Your task to perform on an android device: show emergency info Image 0: 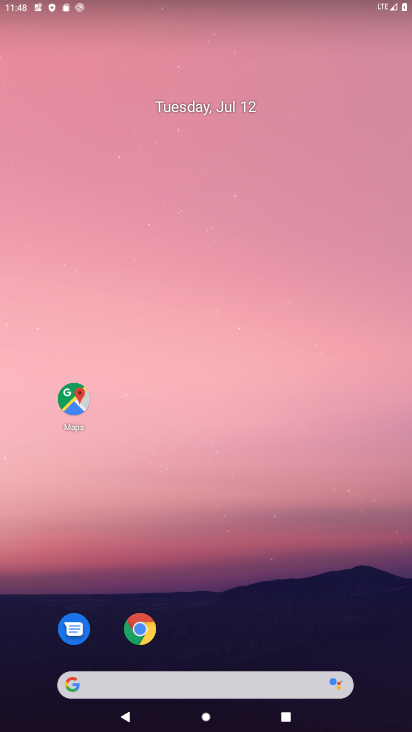
Step 0: press home button
Your task to perform on an android device: show emergency info Image 1: 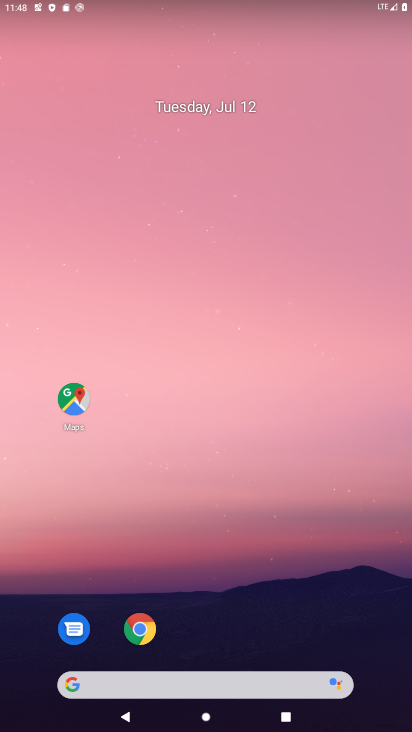
Step 1: drag from (221, 644) to (221, 6)
Your task to perform on an android device: show emergency info Image 2: 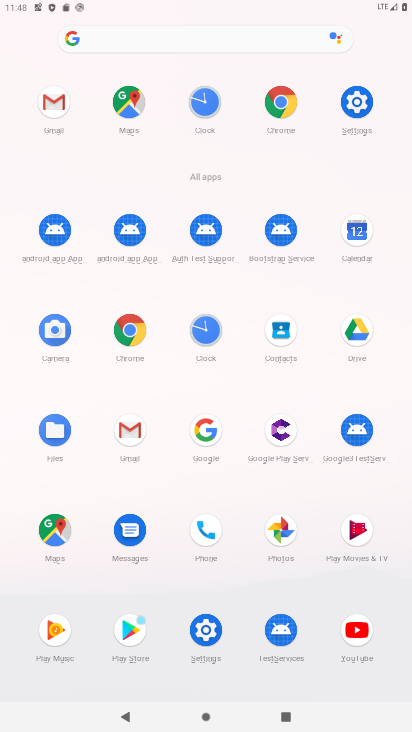
Step 2: click (355, 99)
Your task to perform on an android device: show emergency info Image 3: 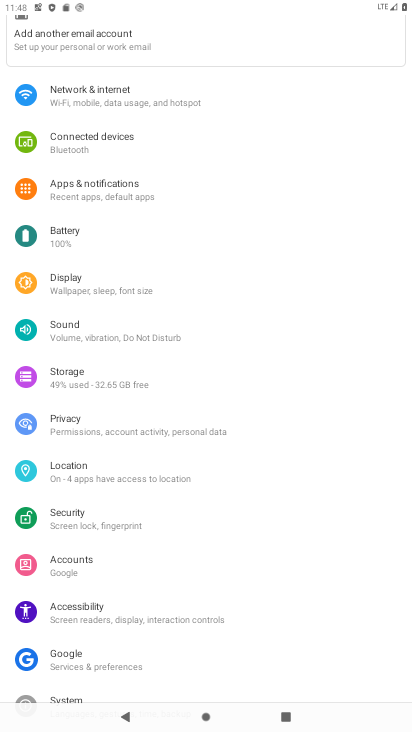
Step 3: drag from (132, 643) to (157, 74)
Your task to perform on an android device: show emergency info Image 4: 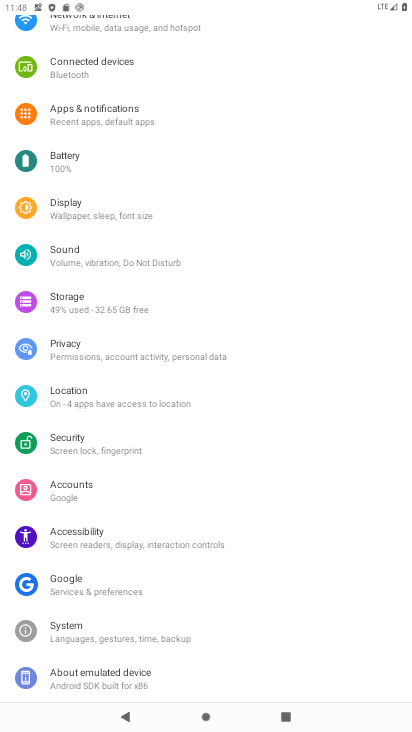
Step 4: click (157, 676)
Your task to perform on an android device: show emergency info Image 5: 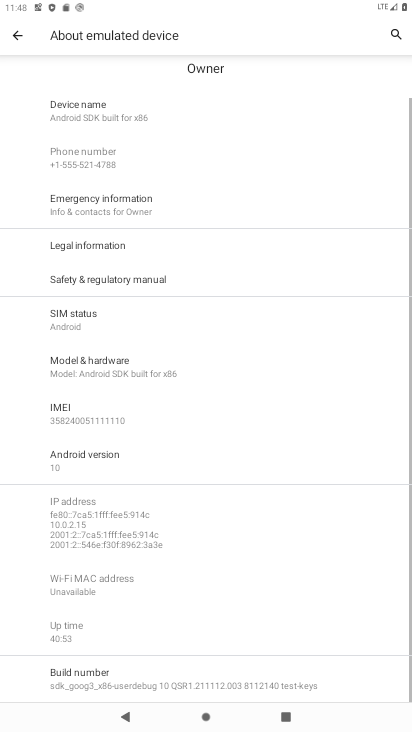
Step 5: click (158, 201)
Your task to perform on an android device: show emergency info Image 6: 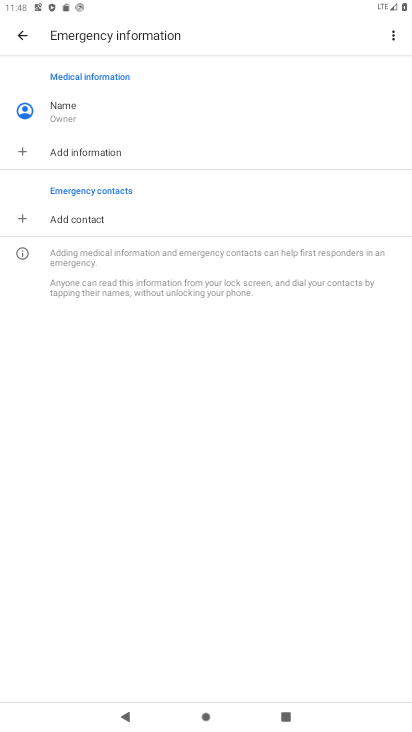
Step 6: task complete